Your task to perform on an android device: turn on showing notifications on the lock screen Image 0: 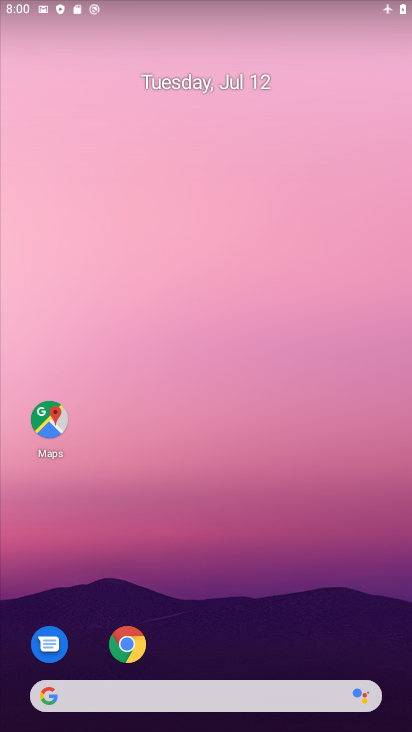
Step 0: drag from (197, 635) to (174, 98)
Your task to perform on an android device: turn on showing notifications on the lock screen Image 1: 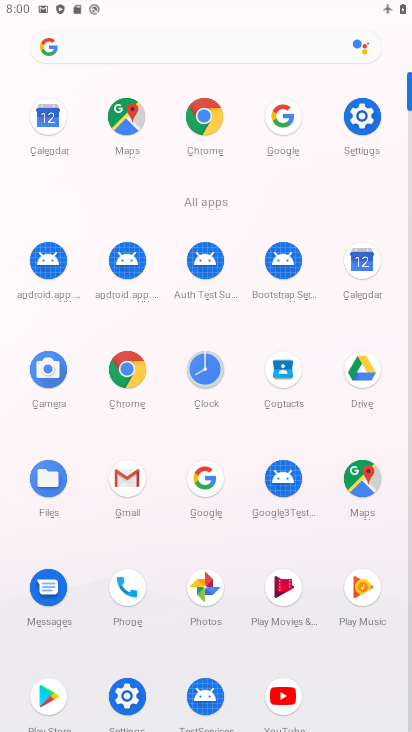
Step 1: click (349, 107)
Your task to perform on an android device: turn on showing notifications on the lock screen Image 2: 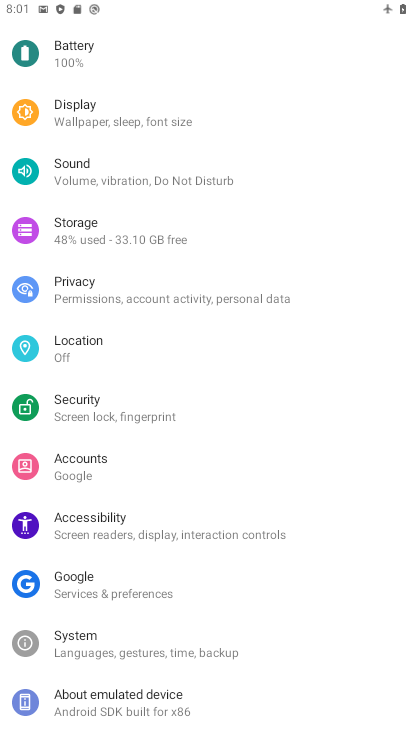
Step 2: drag from (226, 279) to (266, 621)
Your task to perform on an android device: turn on showing notifications on the lock screen Image 3: 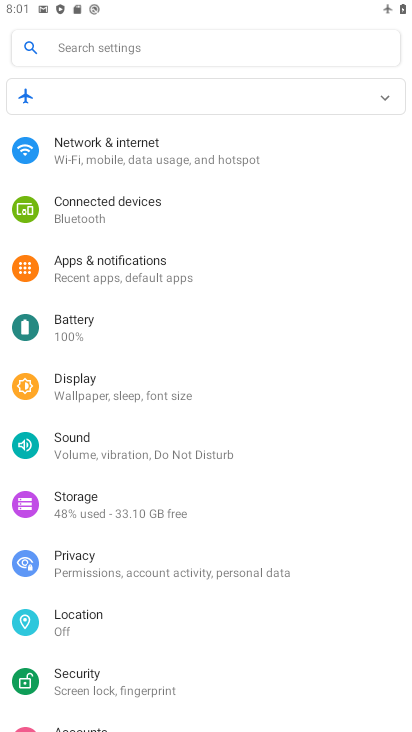
Step 3: click (172, 261)
Your task to perform on an android device: turn on showing notifications on the lock screen Image 4: 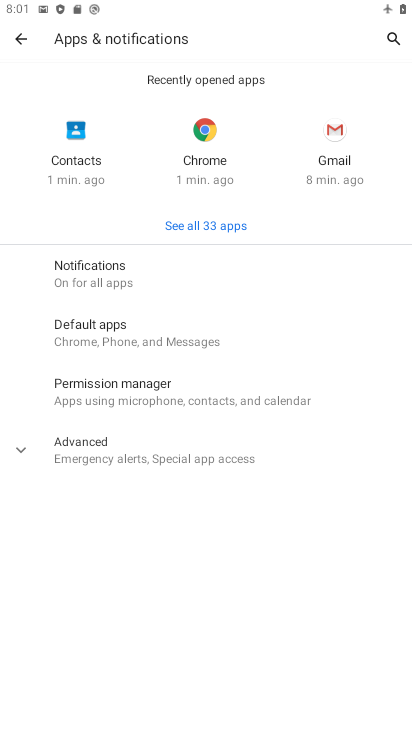
Step 4: click (144, 260)
Your task to perform on an android device: turn on showing notifications on the lock screen Image 5: 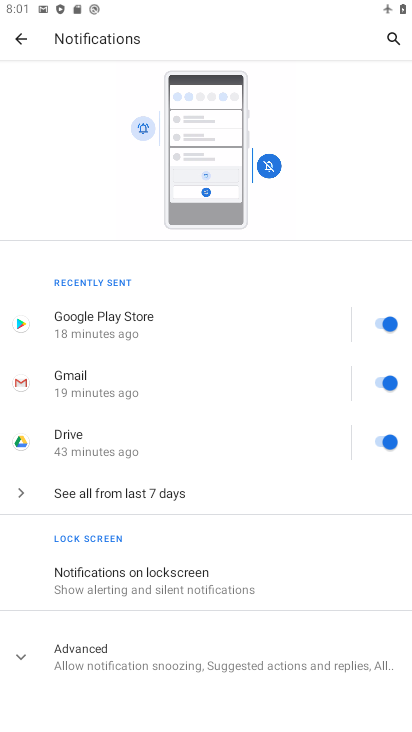
Step 5: click (221, 572)
Your task to perform on an android device: turn on showing notifications on the lock screen Image 6: 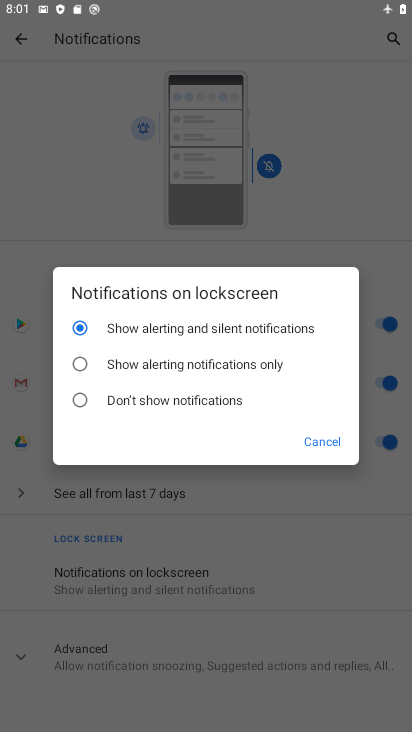
Step 6: task complete